Your task to perform on an android device: change the clock display to analog Image 0: 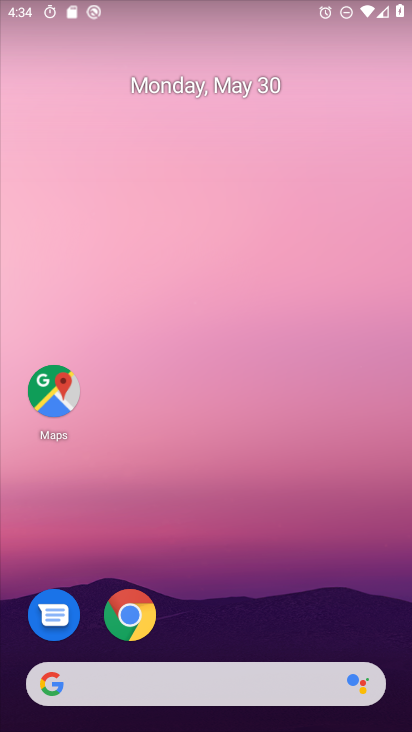
Step 0: drag from (273, 615) to (230, 163)
Your task to perform on an android device: change the clock display to analog Image 1: 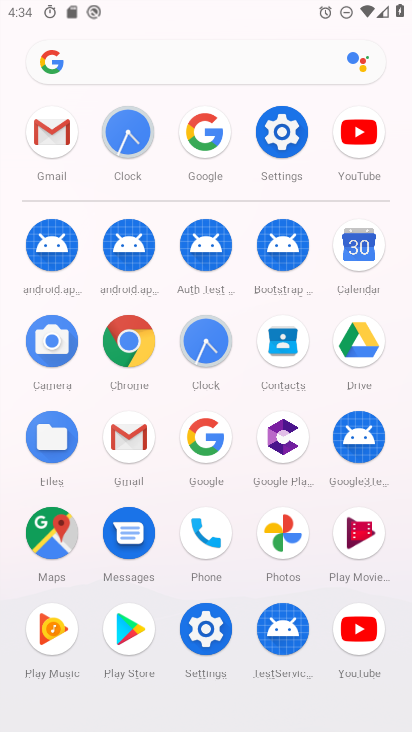
Step 1: click (129, 133)
Your task to perform on an android device: change the clock display to analog Image 2: 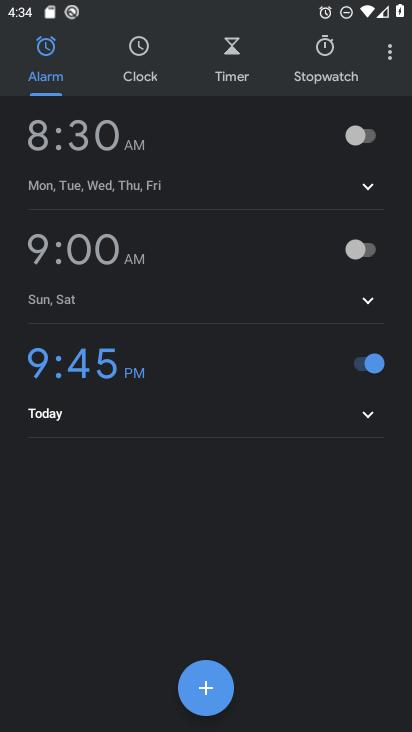
Step 2: click (389, 54)
Your task to perform on an android device: change the clock display to analog Image 3: 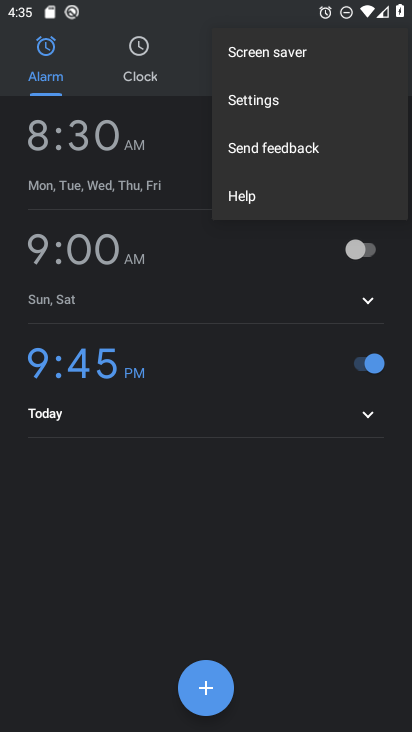
Step 3: click (290, 94)
Your task to perform on an android device: change the clock display to analog Image 4: 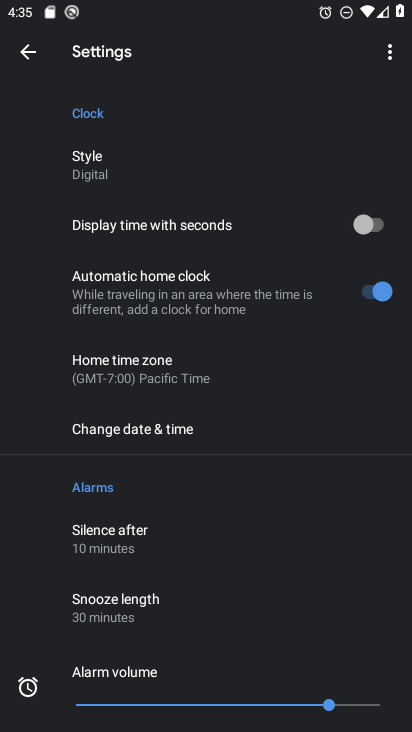
Step 4: click (139, 170)
Your task to perform on an android device: change the clock display to analog Image 5: 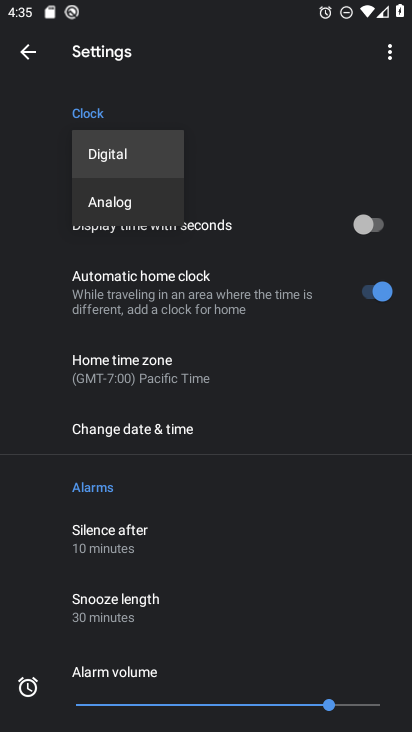
Step 5: click (121, 191)
Your task to perform on an android device: change the clock display to analog Image 6: 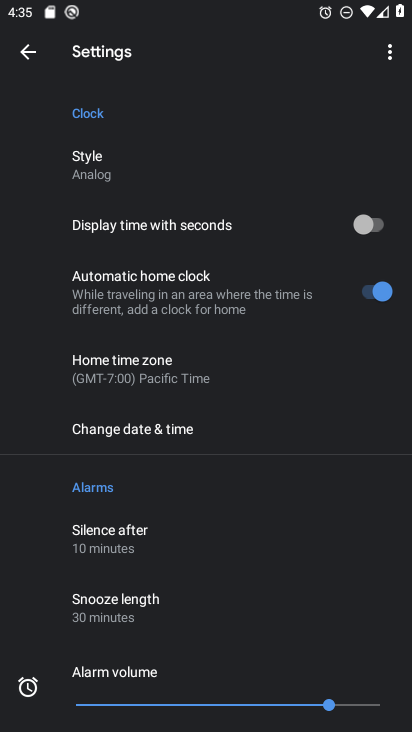
Step 6: task complete